Your task to perform on an android device: Go to CNN.com Image 0: 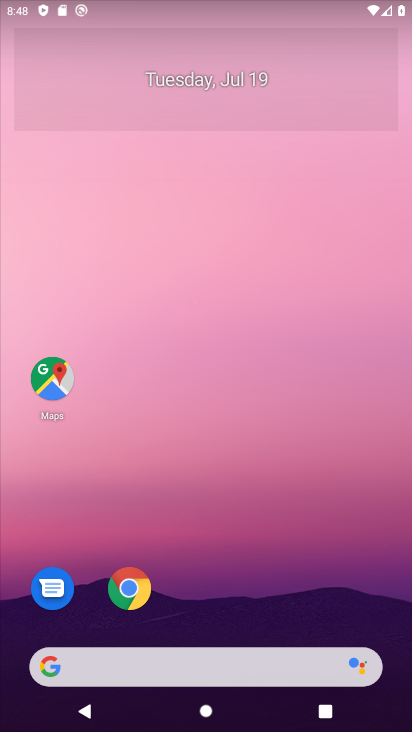
Step 0: drag from (299, 622) to (273, 88)
Your task to perform on an android device: Go to CNN.com Image 1: 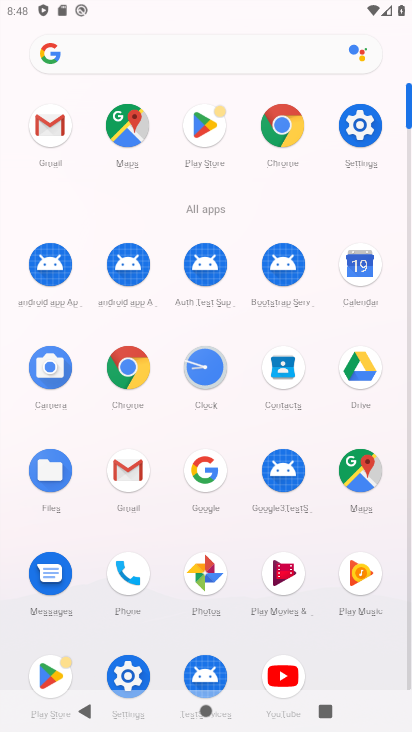
Step 1: click (277, 113)
Your task to perform on an android device: Go to CNN.com Image 2: 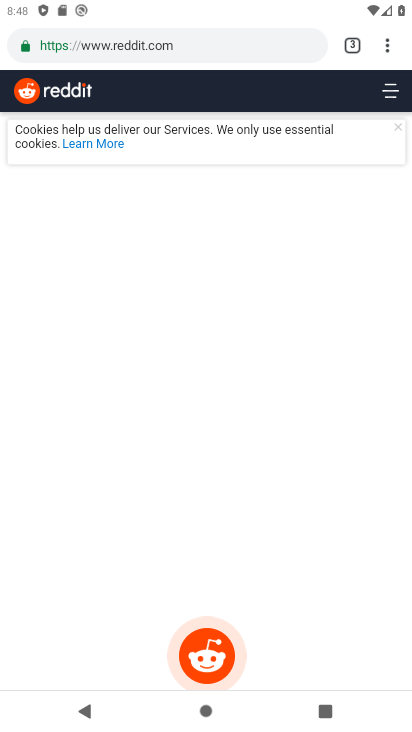
Step 2: press back button
Your task to perform on an android device: Go to CNN.com Image 3: 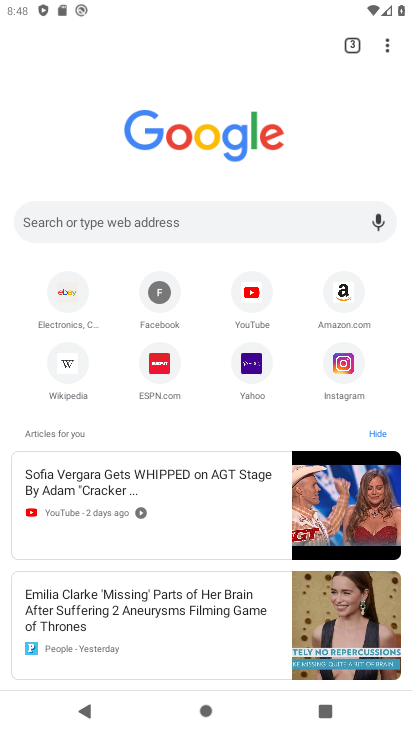
Step 3: click (197, 211)
Your task to perform on an android device: Go to CNN.com Image 4: 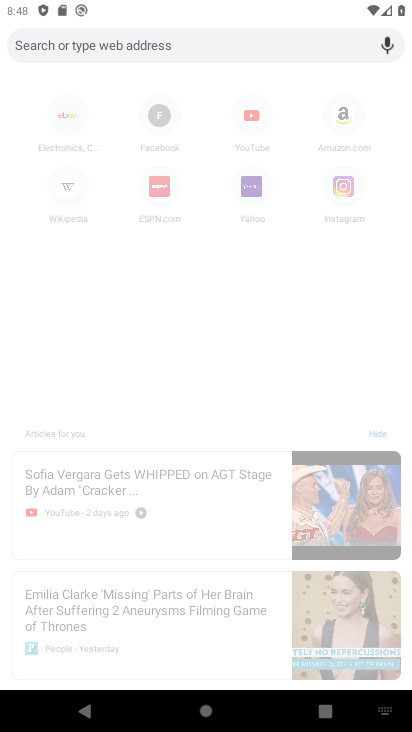
Step 4: type "CNN.com"
Your task to perform on an android device: Go to CNN.com Image 5: 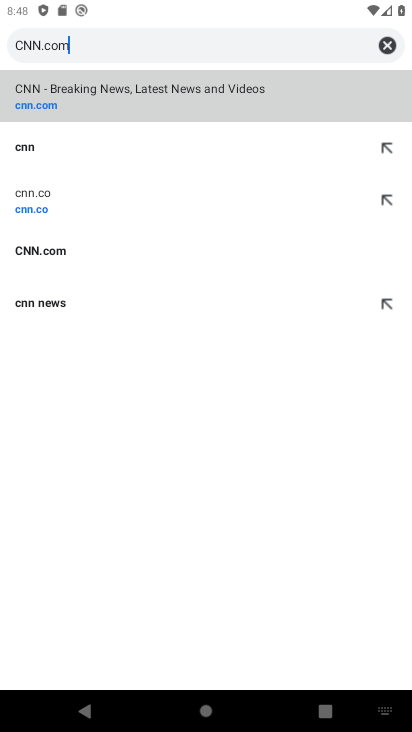
Step 5: press enter
Your task to perform on an android device: Go to CNN.com Image 6: 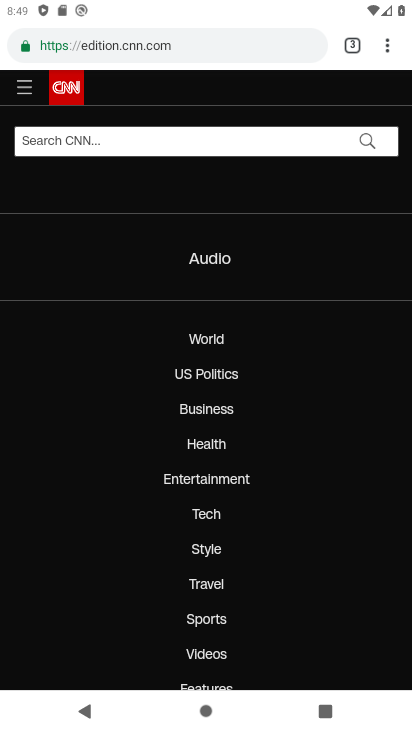
Step 6: task complete